Your task to perform on an android device: turn off notifications in google photos Image 0: 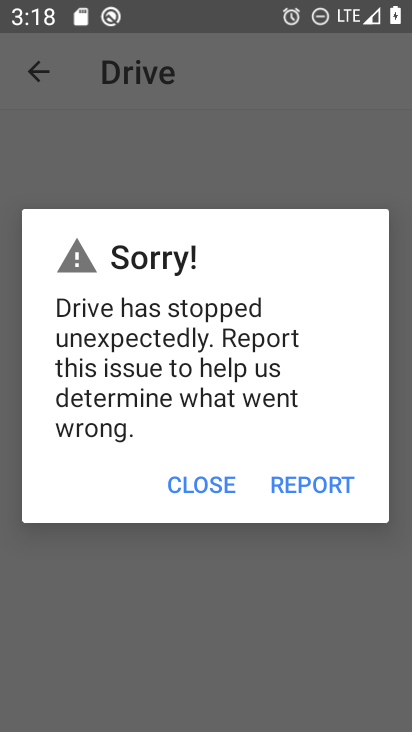
Step 0: press home button
Your task to perform on an android device: turn off notifications in google photos Image 1: 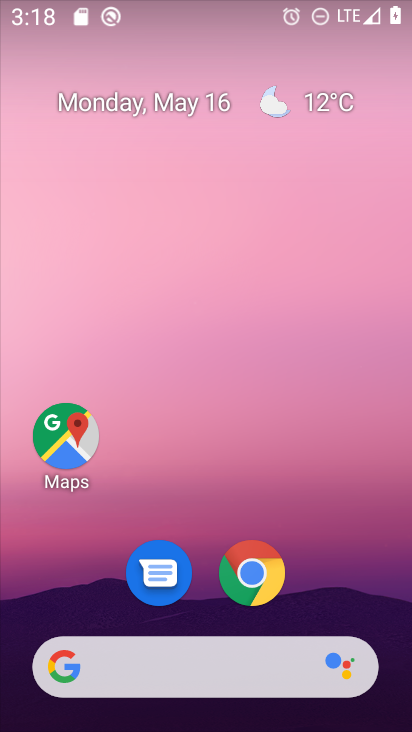
Step 1: drag from (210, 659) to (193, 245)
Your task to perform on an android device: turn off notifications in google photos Image 2: 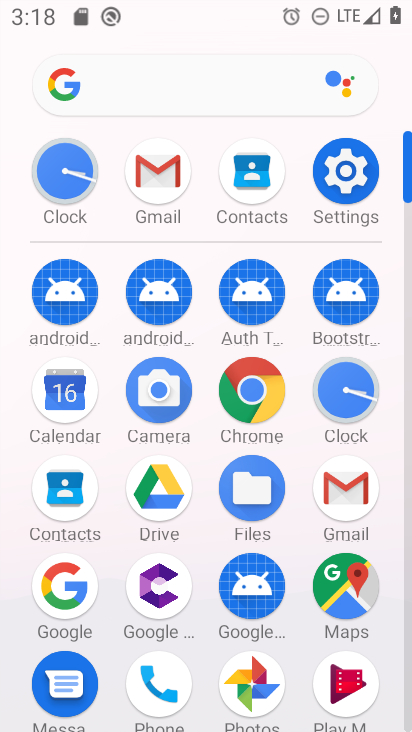
Step 2: click (248, 671)
Your task to perform on an android device: turn off notifications in google photos Image 3: 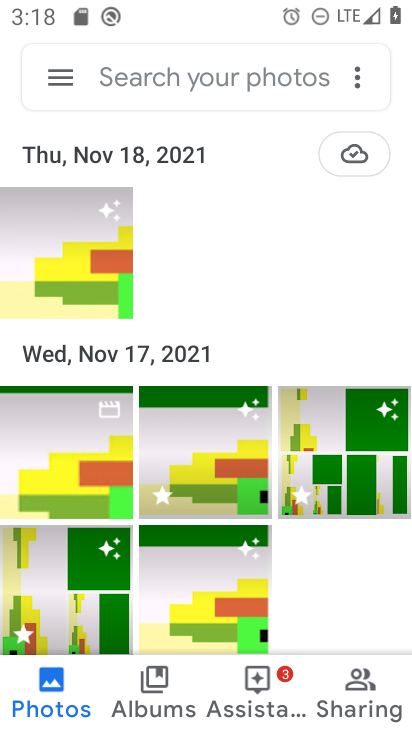
Step 3: click (56, 81)
Your task to perform on an android device: turn off notifications in google photos Image 4: 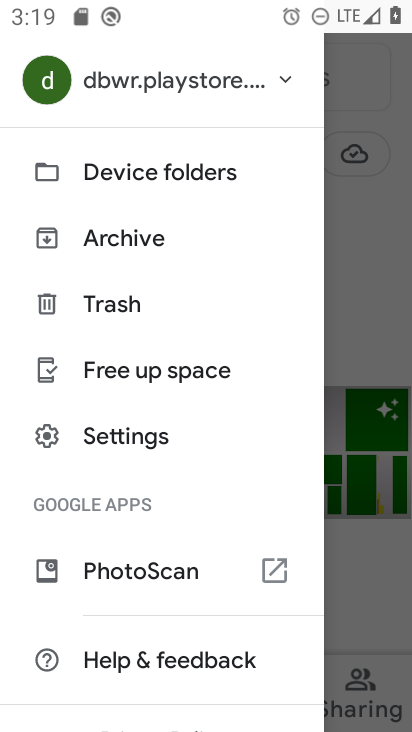
Step 4: click (128, 435)
Your task to perform on an android device: turn off notifications in google photos Image 5: 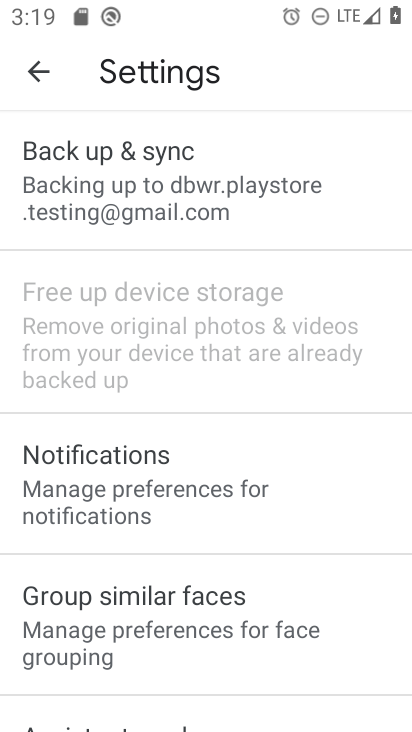
Step 5: click (143, 483)
Your task to perform on an android device: turn off notifications in google photos Image 6: 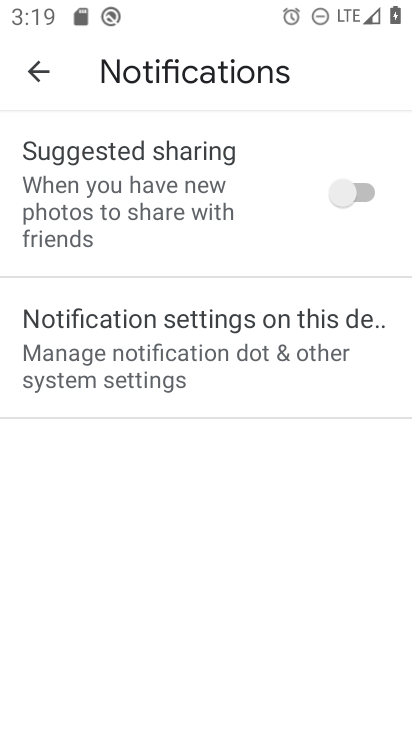
Step 6: click (297, 332)
Your task to perform on an android device: turn off notifications in google photos Image 7: 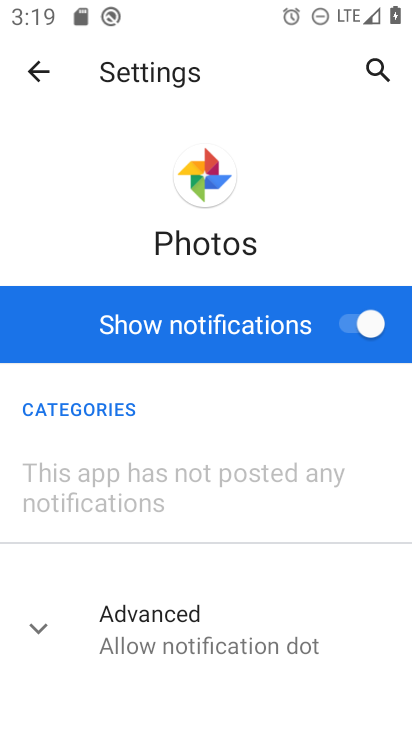
Step 7: click (345, 348)
Your task to perform on an android device: turn off notifications in google photos Image 8: 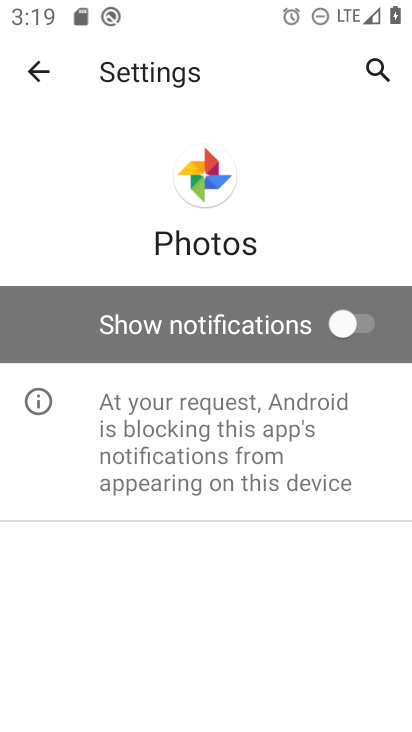
Step 8: task complete